Your task to perform on an android device: turn on translation in the chrome app Image 0: 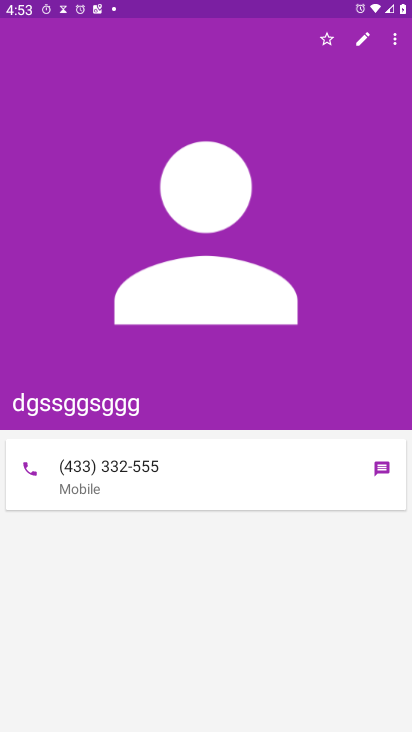
Step 0: press home button
Your task to perform on an android device: turn on translation in the chrome app Image 1: 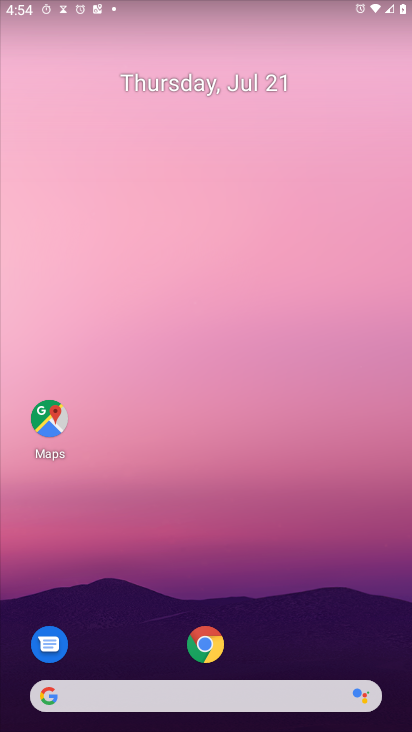
Step 1: drag from (307, 651) to (320, 187)
Your task to perform on an android device: turn on translation in the chrome app Image 2: 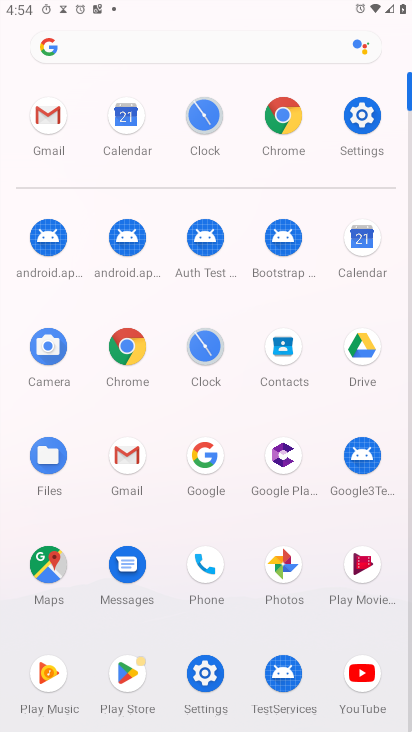
Step 2: click (288, 121)
Your task to perform on an android device: turn on translation in the chrome app Image 3: 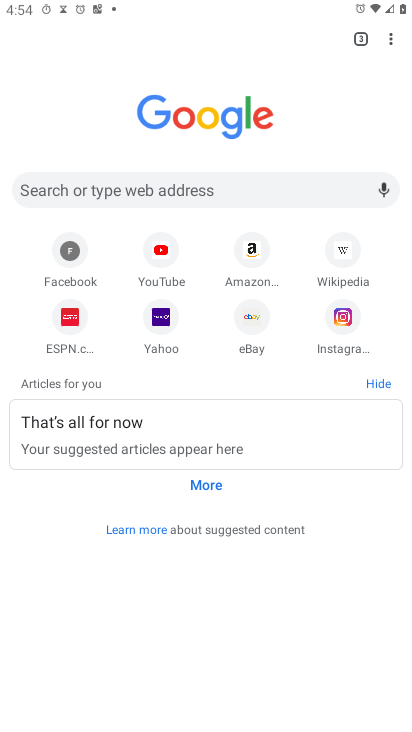
Step 3: drag from (395, 34) to (240, 395)
Your task to perform on an android device: turn on translation in the chrome app Image 4: 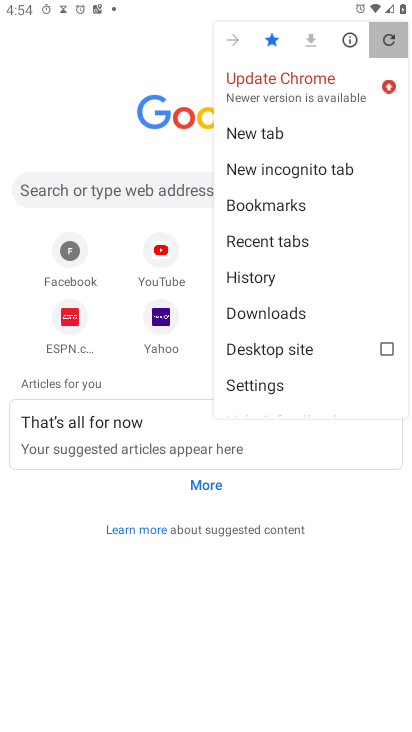
Step 4: click (240, 381)
Your task to perform on an android device: turn on translation in the chrome app Image 5: 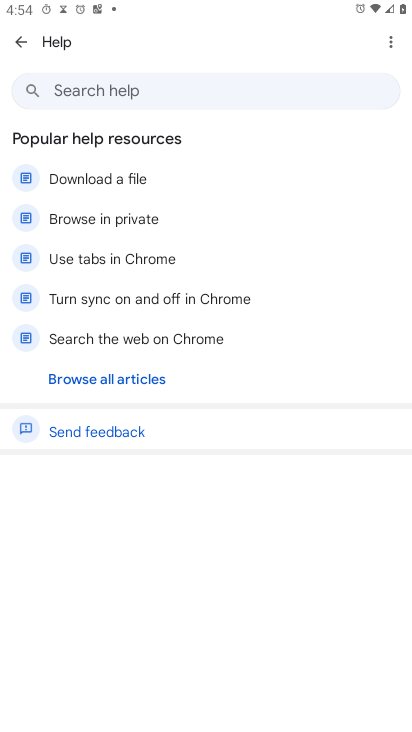
Step 5: click (18, 34)
Your task to perform on an android device: turn on translation in the chrome app Image 6: 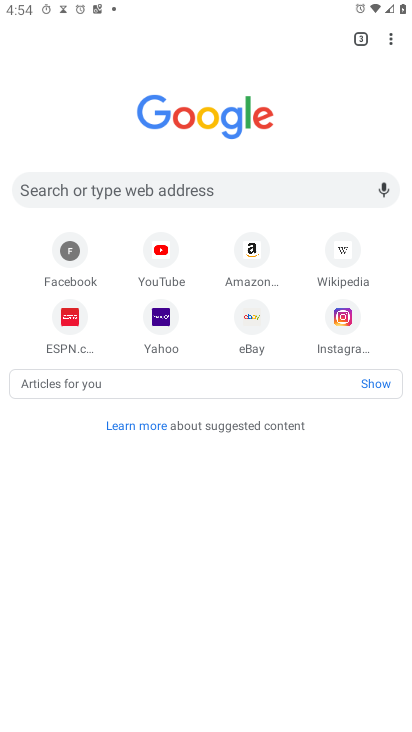
Step 6: drag from (396, 38) to (244, 384)
Your task to perform on an android device: turn on translation in the chrome app Image 7: 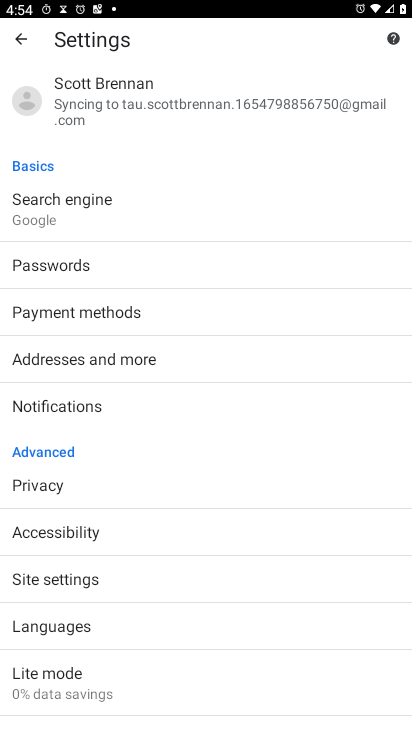
Step 7: click (37, 629)
Your task to perform on an android device: turn on translation in the chrome app Image 8: 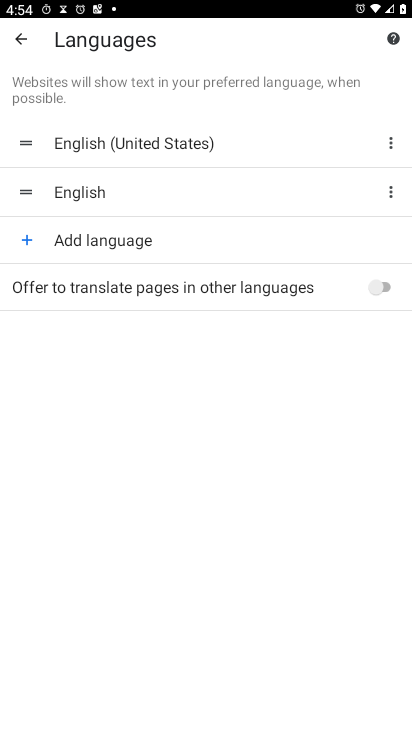
Step 8: click (380, 296)
Your task to perform on an android device: turn on translation in the chrome app Image 9: 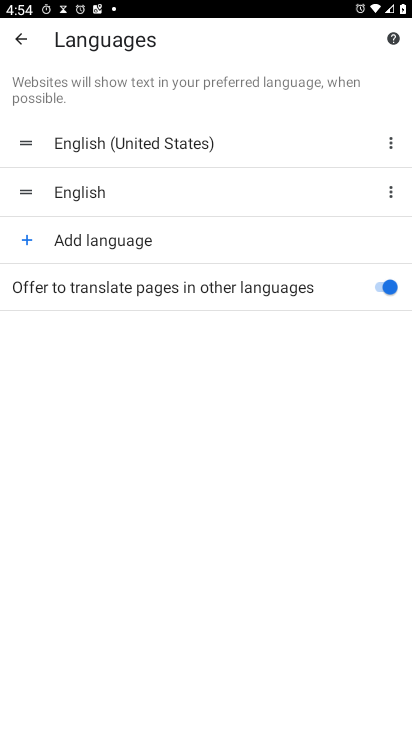
Step 9: task complete